Your task to perform on an android device: How much does a 2 bedroom apartment rent for in Austin? Image 0: 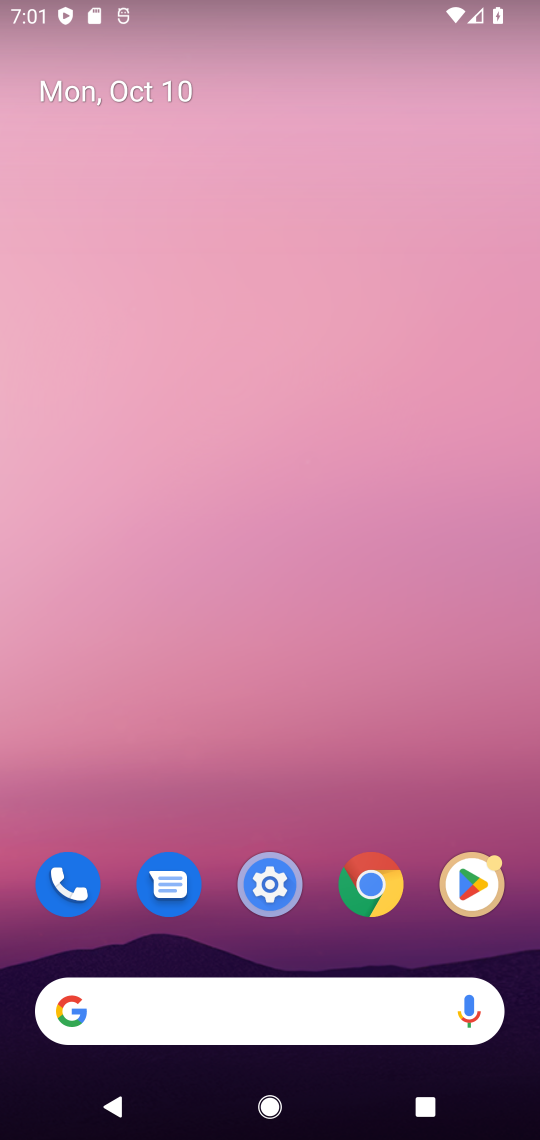
Step 0: click (383, 902)
Your task to perform on an android device: How much does a 2 bedroom apartment rent for in Austin? Image 1: 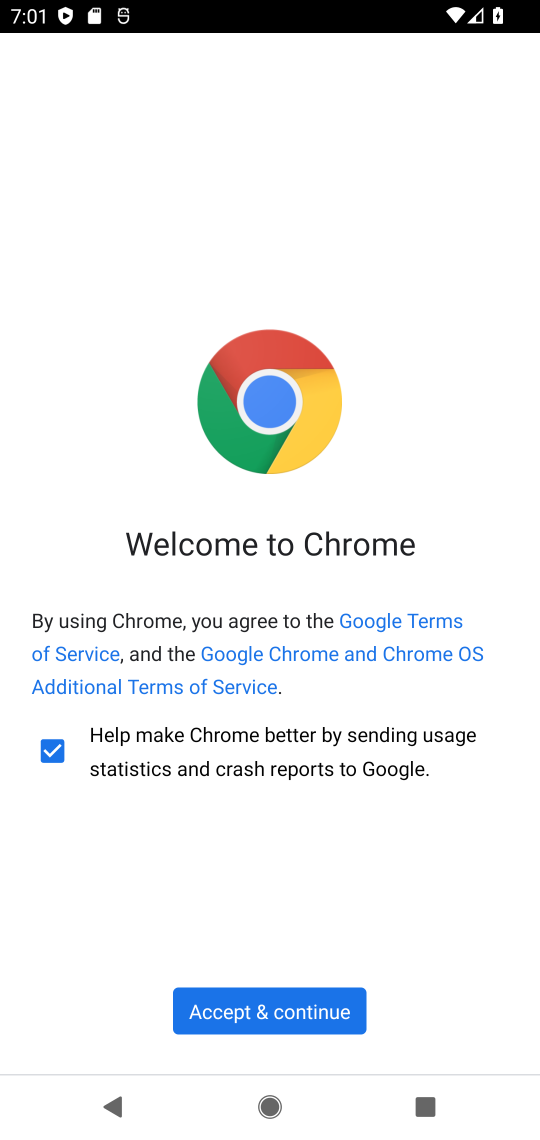
Step 1: click (234, 1000)
Your task to perform on an android device: How much does a 2 bedroom apartment rent for in Austin? Image 2: 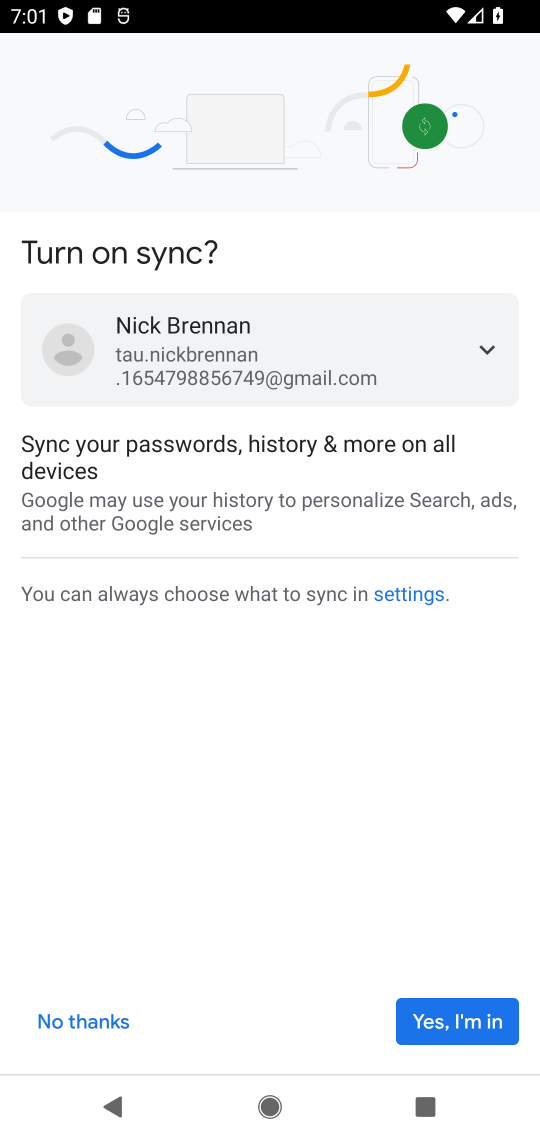
Step 2: click (426, 1018)
Your task to perform on an android device: How much does a 2 bedroom apartment rent for in Austin? Image 3: 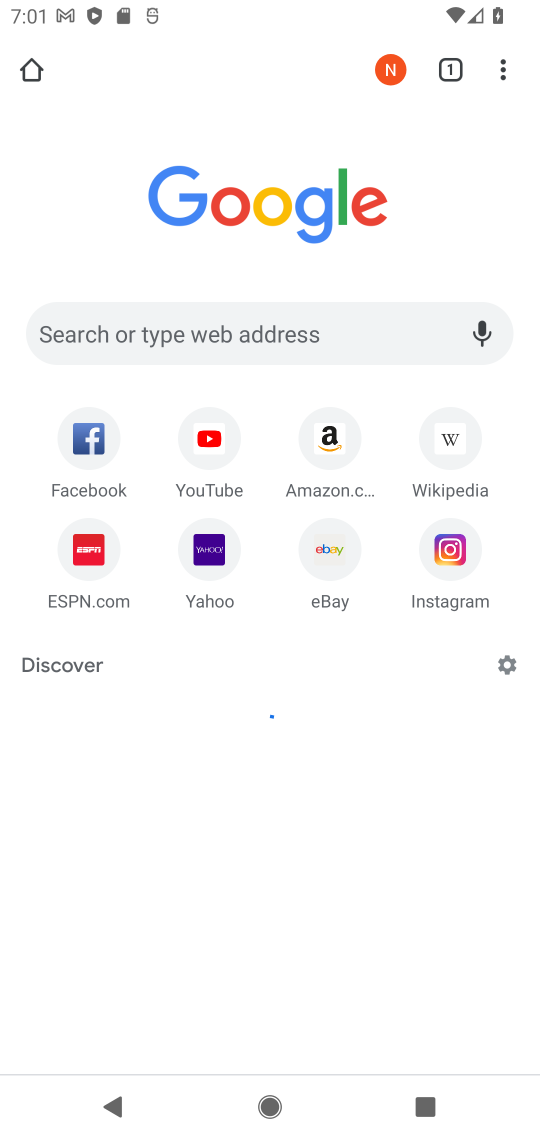
Step 3: click (271, 335)
Your task to perform on an android device: How much does a 2 bedroom apartment rent for in Austin? Image 4: 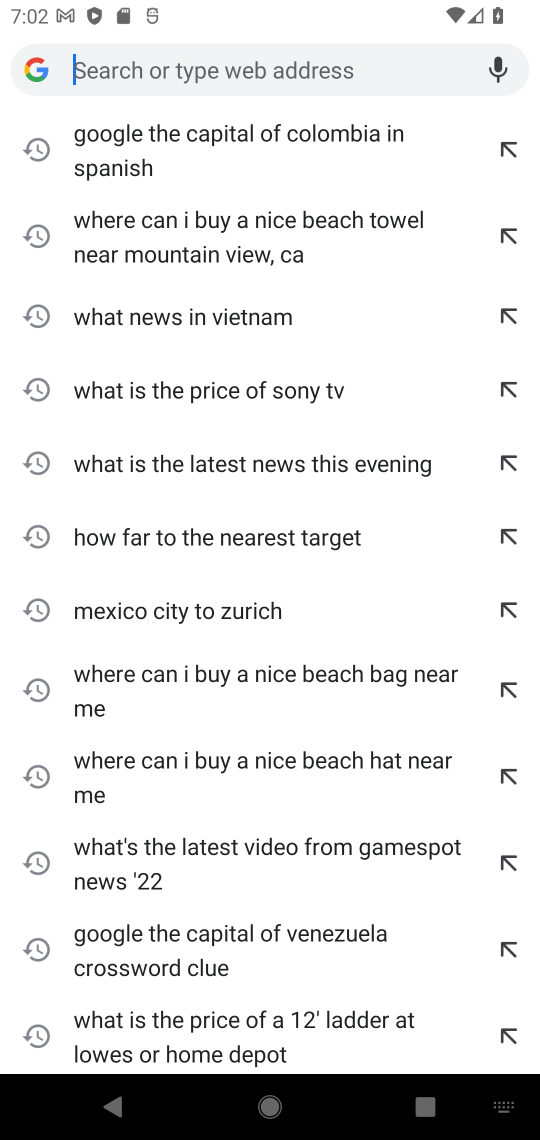
Step 4: type "2 bedroom apartment rent for in Austin?"
Your task to perform on an android device: How much does a 2 bedroom apartment rent for in Austin? Image 5: 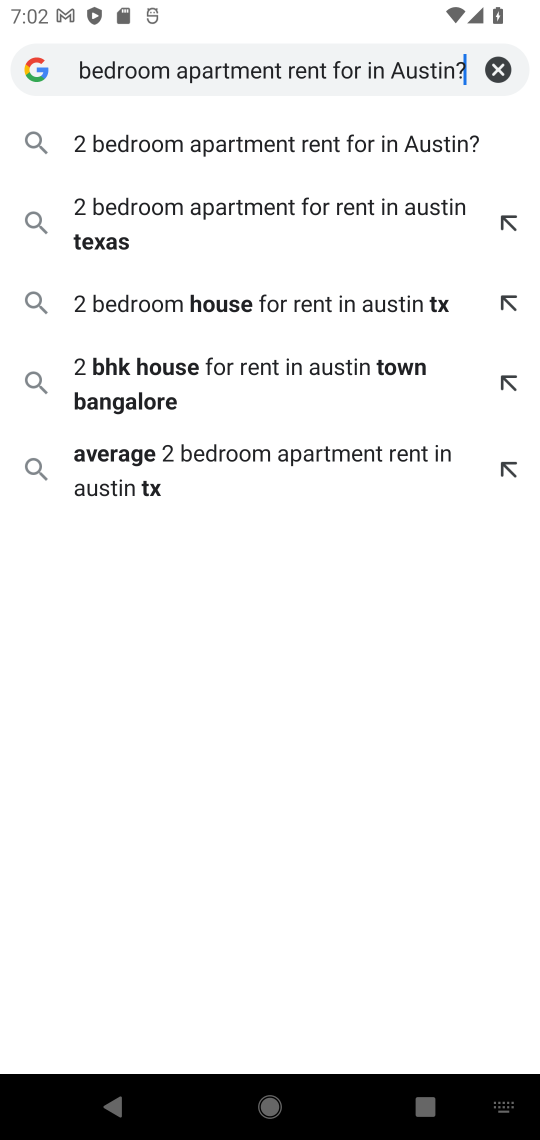
Step 5: click (348, 133)
Your task to perform on an android device: How much does a 2 bedroom apartment rent for in Austin? Image 6: 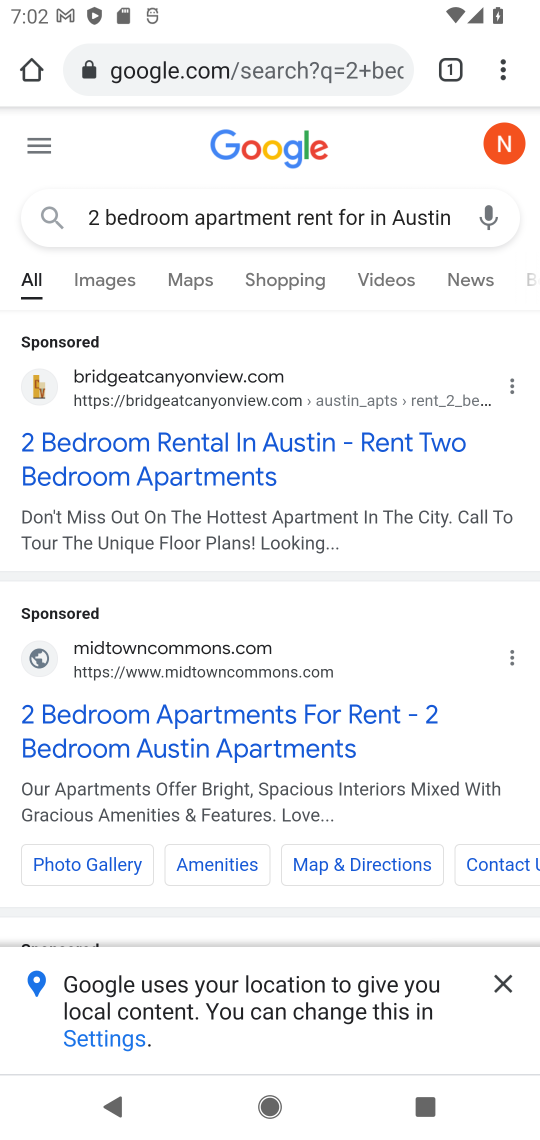
Step 6: task complete